Your task to perform on an android device: clear all cookies in the chrome app Image 0: 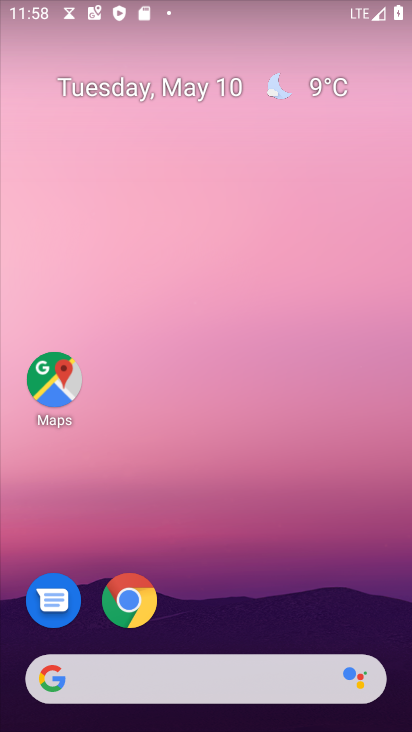
Step 0: click (131, 593)
Your task to perform on an android device: clear all cookies in the chrome app Image 1: 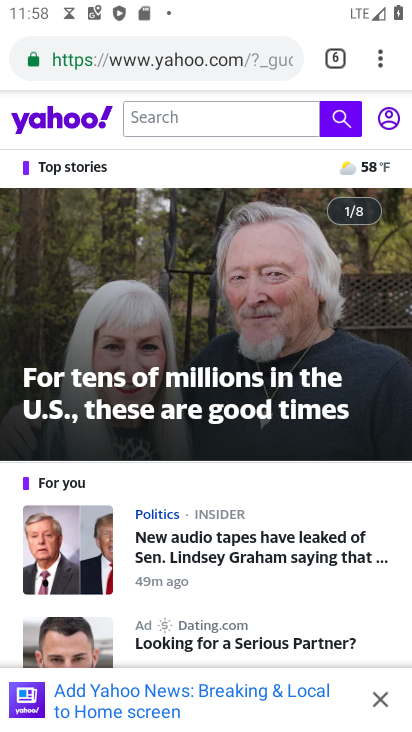
Step 1: click (383, 63)
Your task to perform on an android device: clear all cookies in the chrome app Image 2: 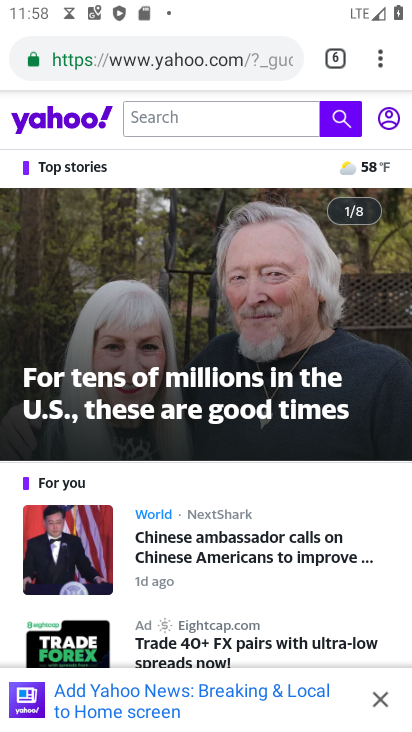
Step 2: click (384, 62)
Your task to perform on an android device: clear all cookies in the chrome app Image 3: 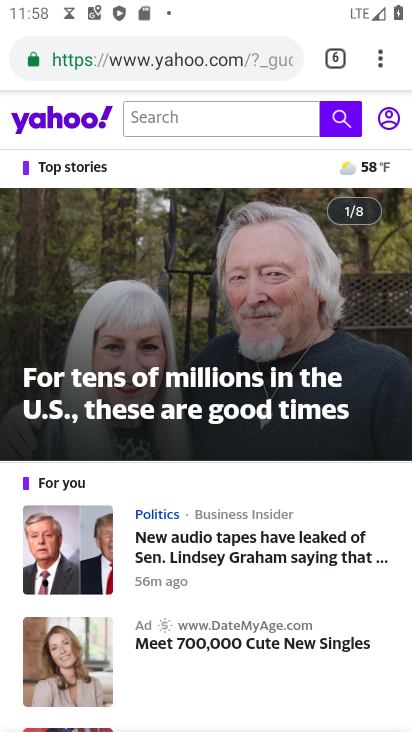
Step 3: click (379, 54)
Your task to perform on an android device: clear all cookies in the chrome app Image 4: 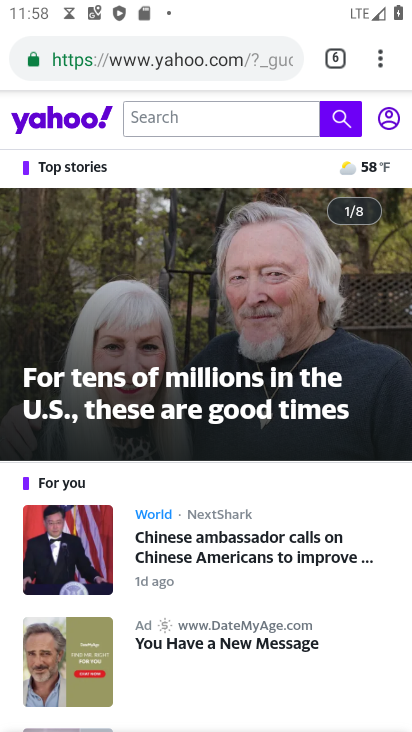
Step 4: click (374, 60)
Your task to perform on an android device: clear all cookies in the chrome app Image 5: 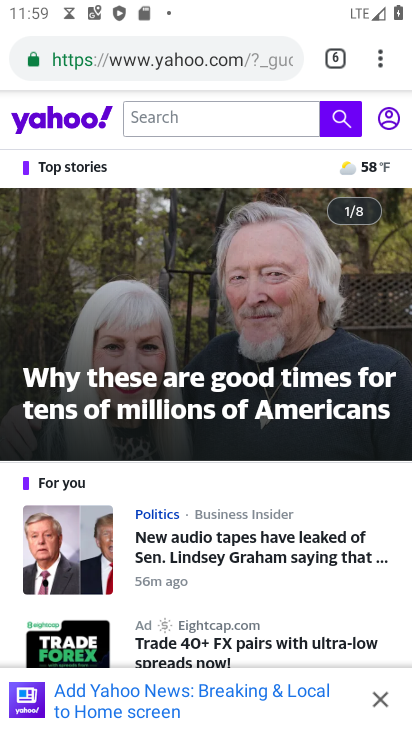
Step 5: click (374, 55)
Your task to perform on an android device: clear all cookies in the chrome app Image 6: 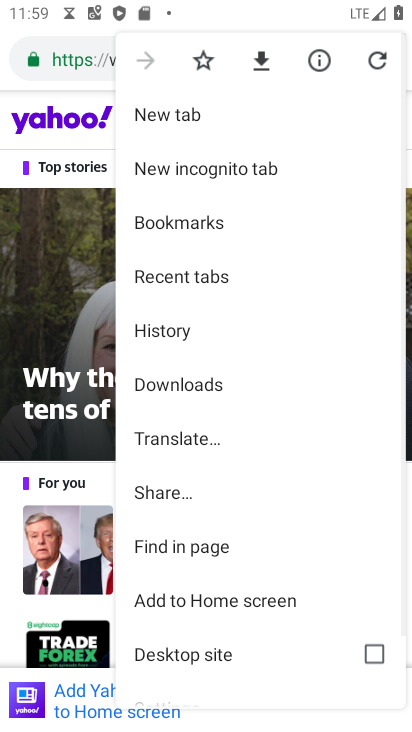
Step 6: click (214, 339)
Your task to perform on an android device: clear all cookies in the chrome app Image 7: 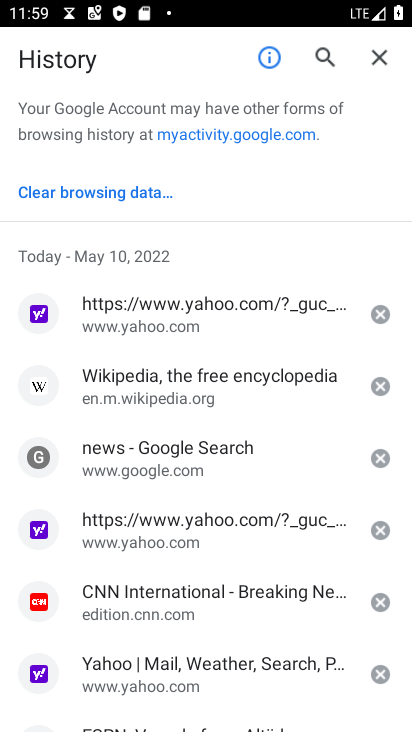
Step 7: click (102, 192)
Your task to perform on an android device: clear all cookies in the chrome app Image 8: 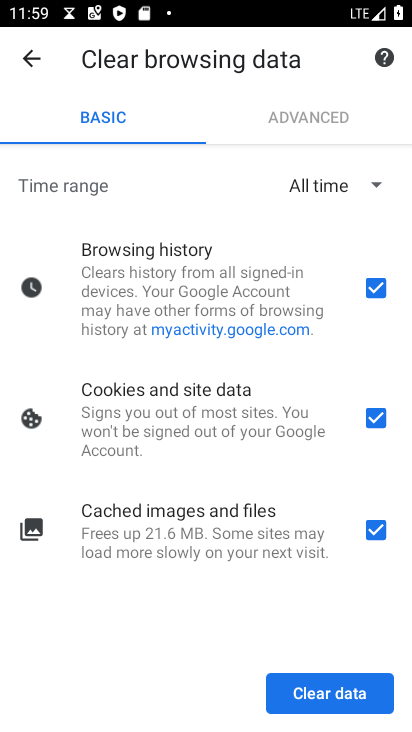
Step 8: click (376, 275)
Your task to perform on an android device: clear all cookies in the chrome app Image 9: 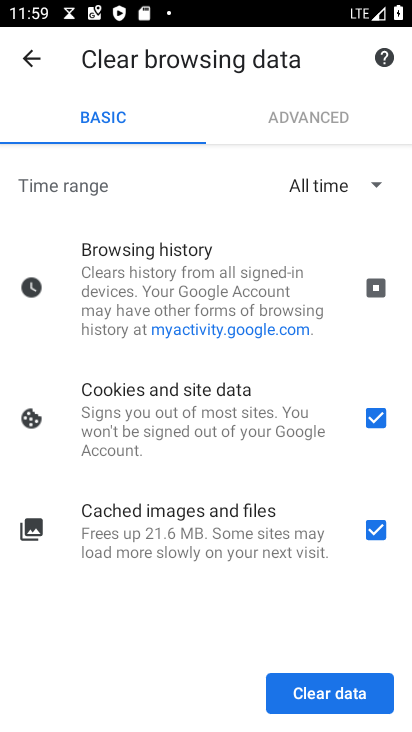
Step 9: click (367, 536)
Your task to perform on an android device: clear all cookies in the chrome app Image 10: 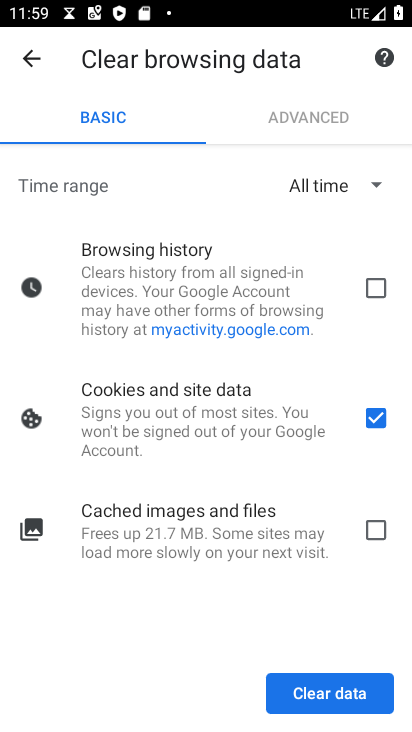
Step 10: click (352, 689)
Your task to perform on an android device: clear all cookies in the chrome app Image 11: 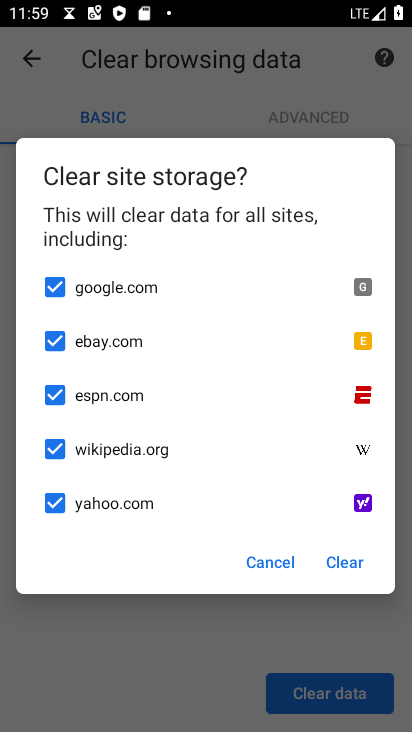
Step 11: click (351, 559)
Your task to perform on an android device: clear all cookies in the chrome app Image 12: 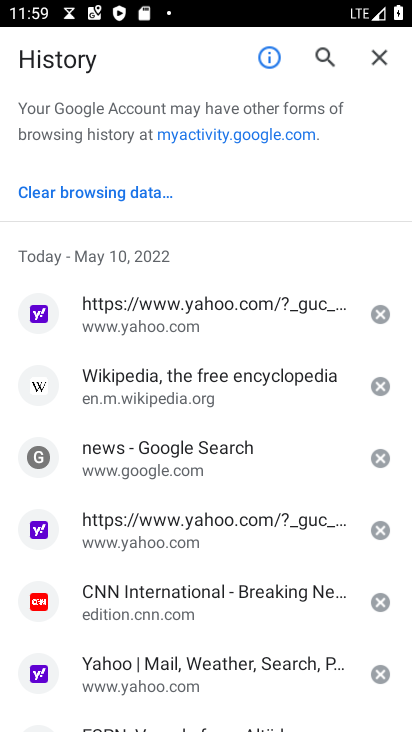
Step 12: task complete